Your task to perform on an android device: Open the calendar app, open the side menu, and click the "Day" option Image 0: 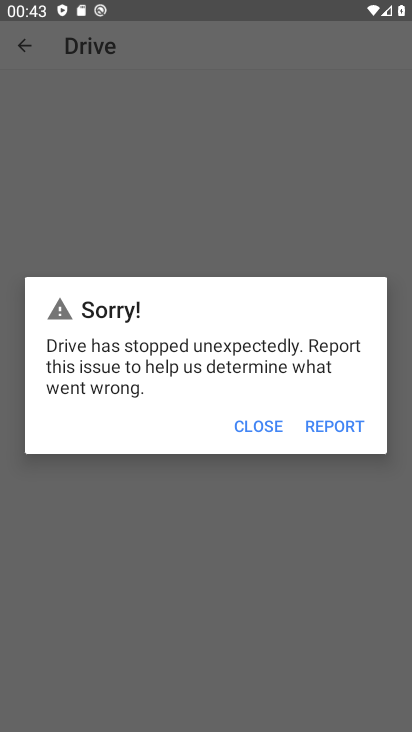
Step 0: press home button
Your task to perform on an android device: Open the calendar app, open the side menu, and click the "Day" option Image 1: 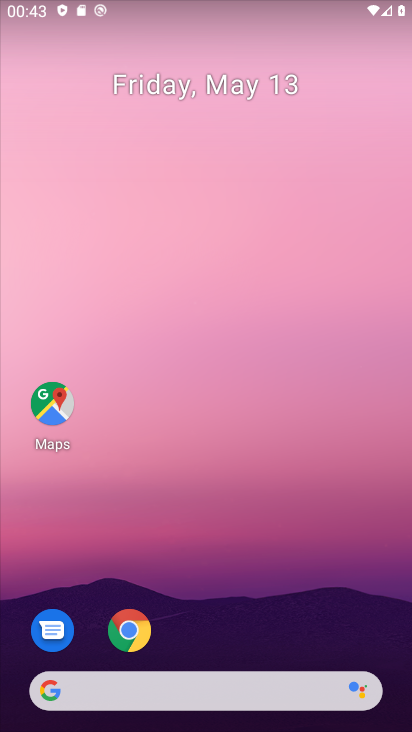
Step 1: drag from (256, 705) to (263, 253)
Your task to perform on an android device: Open the calendar app, open the side menu, and click the "Day" option Image 2: 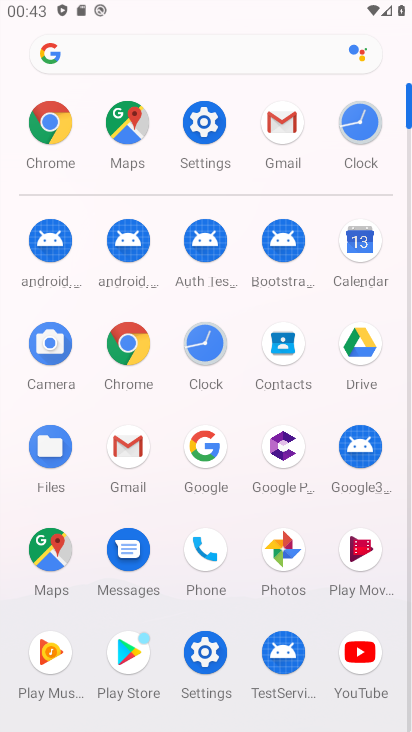
Step 2: click (357, 250)
Your task to perform on an android device: Open the calendar app, open the side menu, and click the "Day" option Image 3: 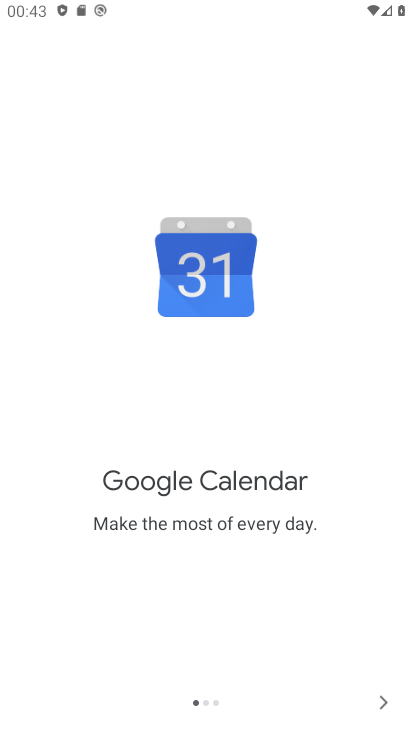
Step 3: click (364, 701)
Your task to perform on an android device: Open the calendar app, open the side menu, and click the "Day" option Image 4: 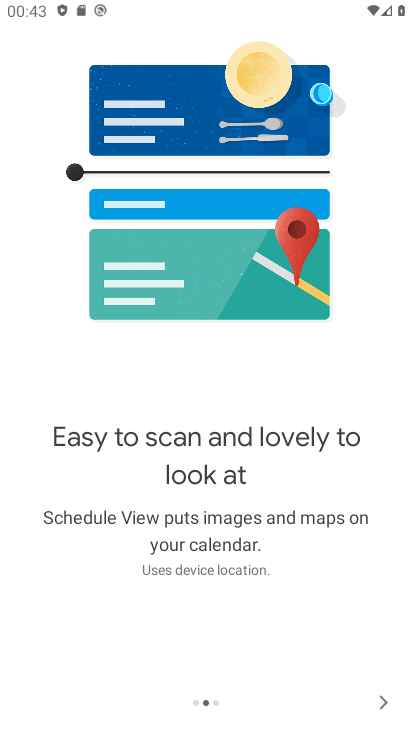
Step 4: click (380, 697)
Your task to perform on an android device: Open the calendar app, open the side menu, and click the "Day" option Image 5: 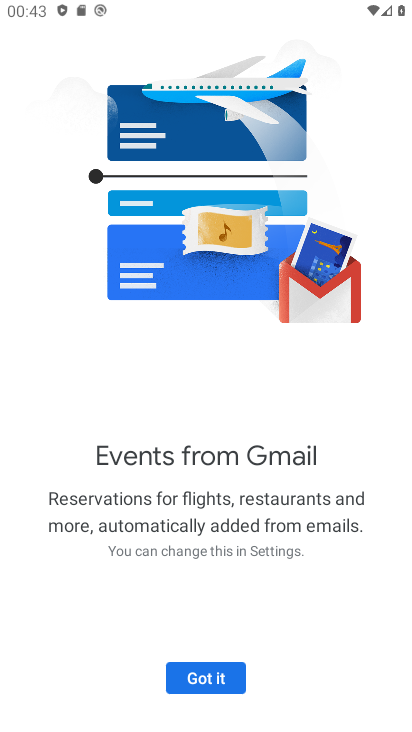
Step 5: click (205, 683)
Your task to perform on an android device: Open the calendar app, open the side menu, and click the "Day" option Image 6: 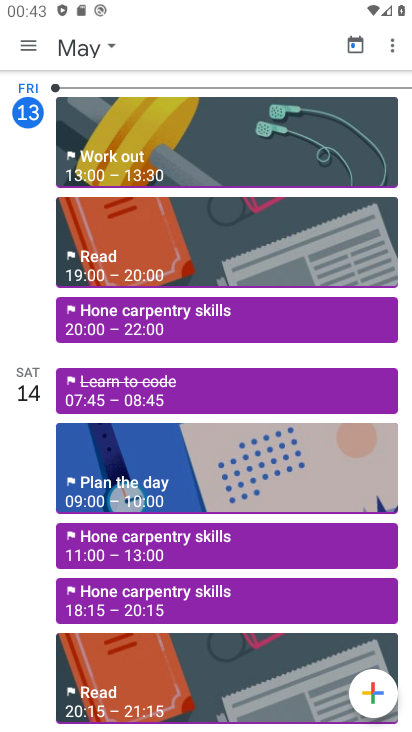
Step 6: click (27, 51)
Your task to perform on an android device: Open the calendar app, open the side menu, and click the "Day" option Image 7: 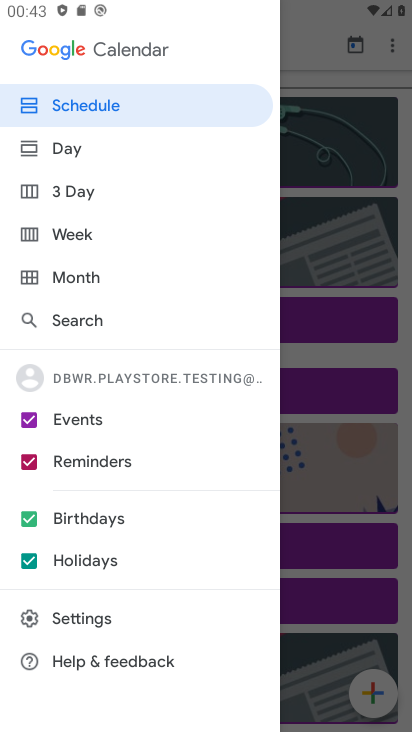
Step 7: click (75, 159)
Your task to perform on an android device: Open the calendar app, open the side menu, and click the "Day" option Image 8: 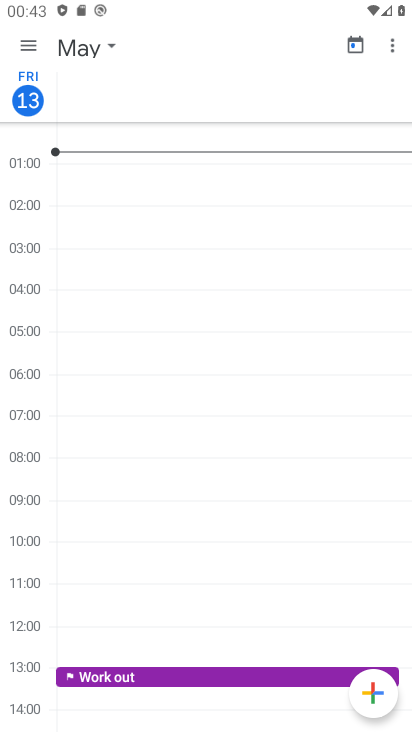
Step 8: task complete